Your task to perform on an android device: turn off airplane mode Image 0: 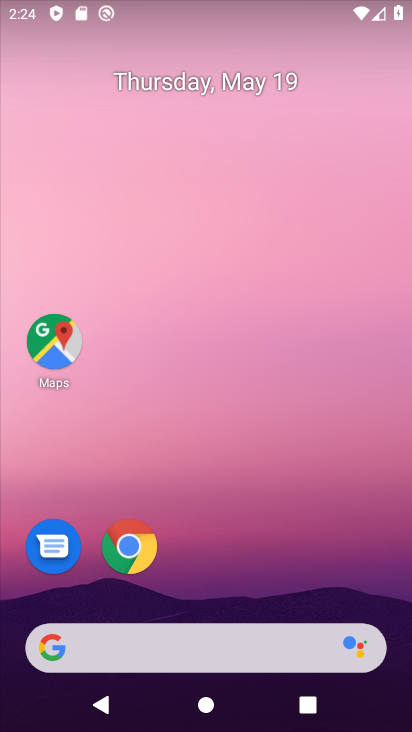
Step 0: drag from (288, 551) to (240, 22)
Your task to perform on an android device: turn off airplane mode Image 1: 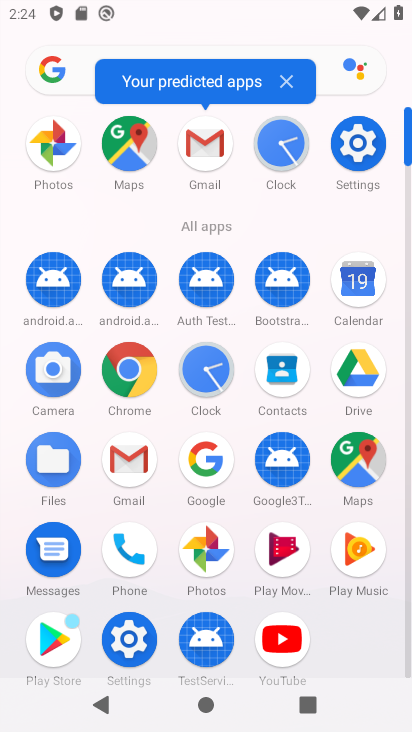
Step 1: click (358, 140)
Your task to perform on an android device: turn off airplane mode Image 2: 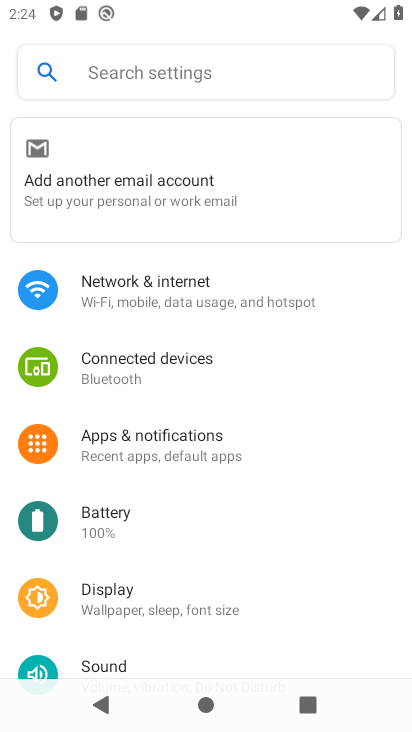
Step 2: click (175, 286)
Your task to perform on an android device: turn off airplane mode Image 3: 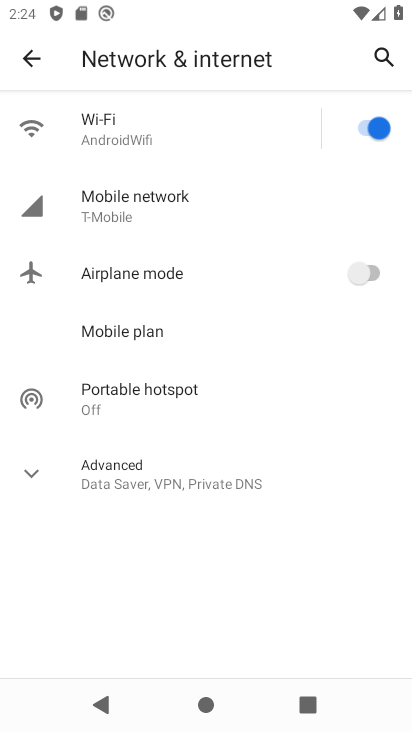
Step 3: task complete